Your task to perform on an android device: check out phone information Image 0: 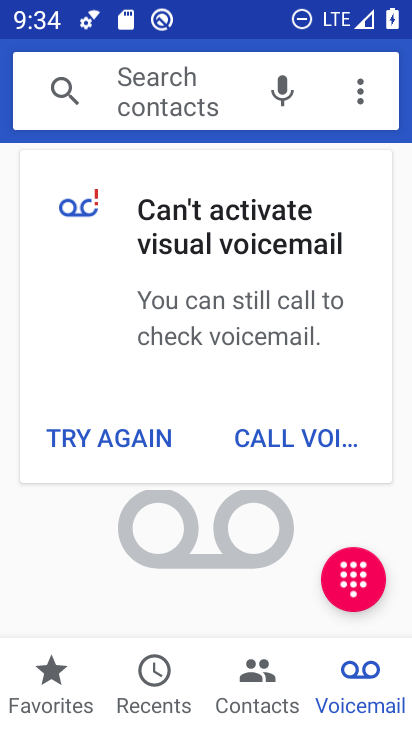
Step 0: press home button
Your task to perform on an android device: check out phone information Image 1: 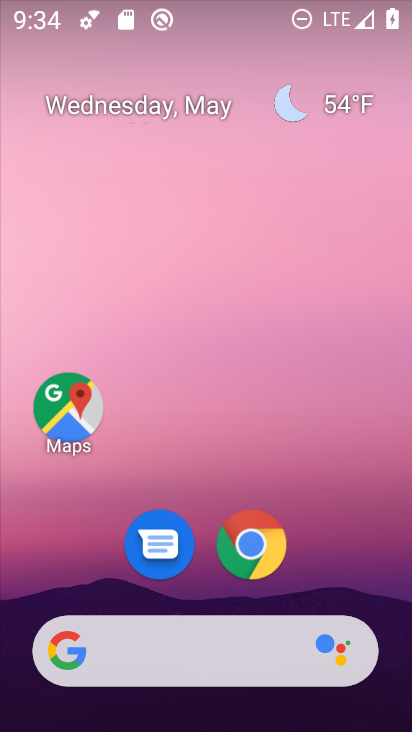
Step 1: drag from (199, 586) to (243, 233)
Your task to perform on an android device: check out phone information Image 2: 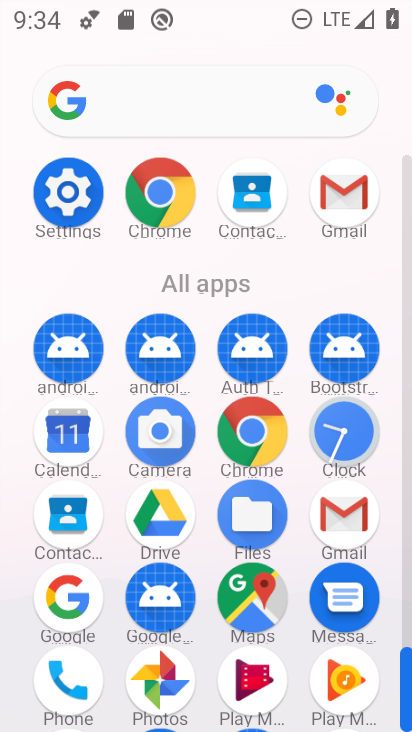
Step 2: click (65, 657)
Your task to perform on an android device: check out phone information Image 3: 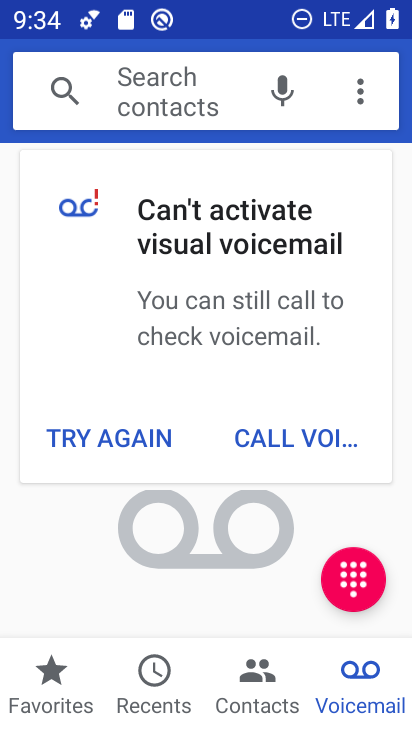
Step 3: click (372, 96)
Your task to perform on an android device: check out phone information Image 4: 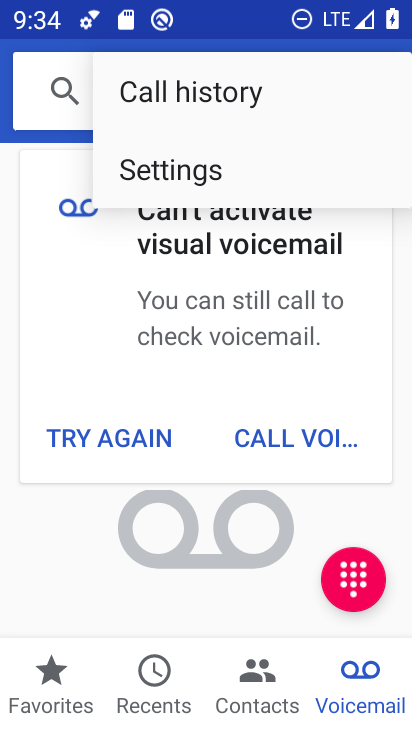
Step 4: click (205, 193)
Your task to perform on an android device: check out phone information Image 5: 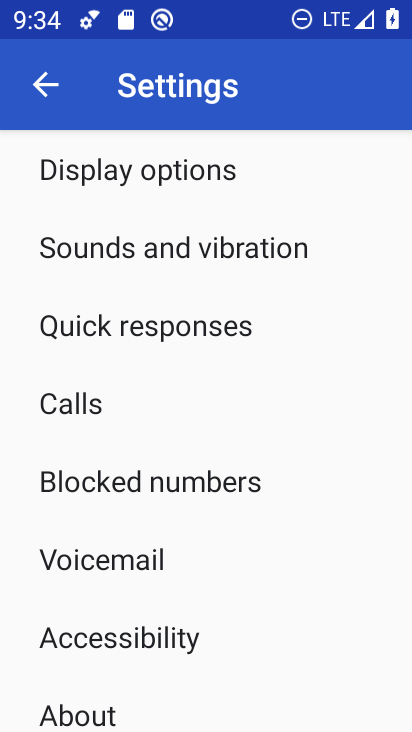
Step 5: drag from (107, 563) to (147, 136)
Your task to perform on an android device: check out phone information Image 6: 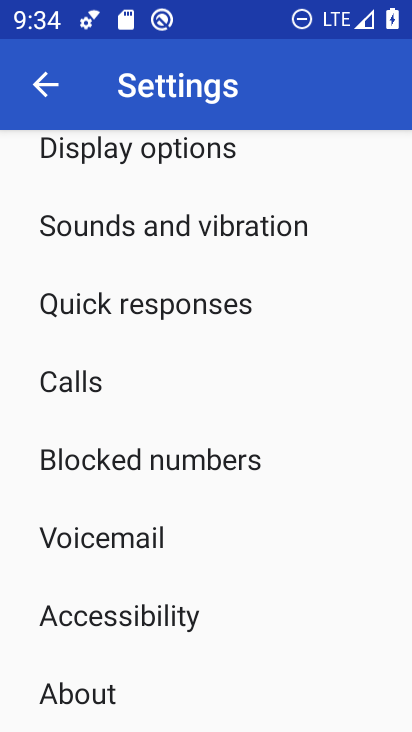
Step 6: click (193, 703)
Your task to perform on an android device: check out phone information Image 7: 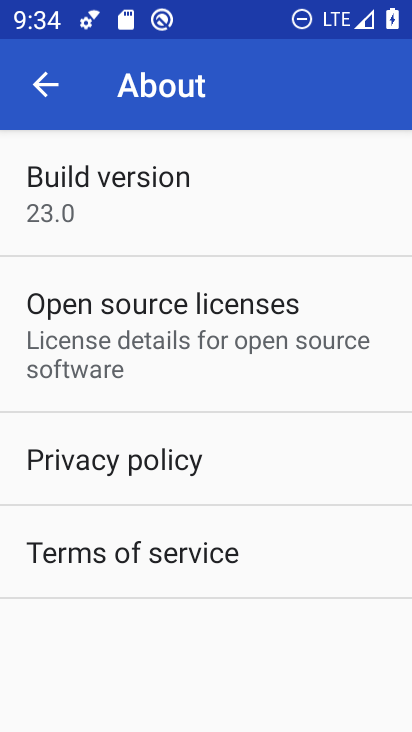
Step 7: task complete